Your task to perform on an android device: Is it going to rain today? Image 0: 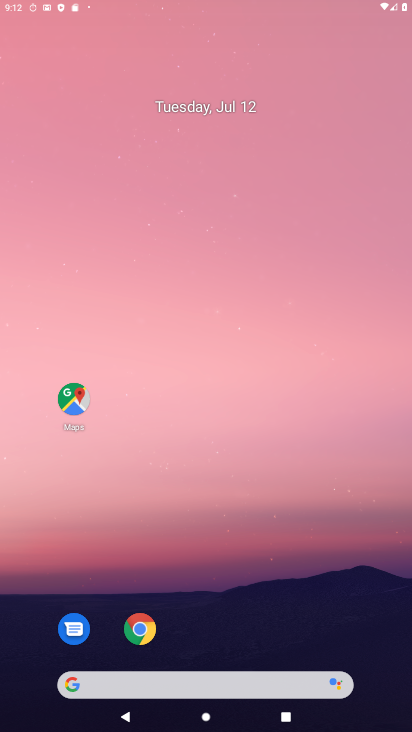
Step 0: drag from (275, 676) to (227, 209)
Your task to perform on an android device: Is it going to rain today? Image 1: 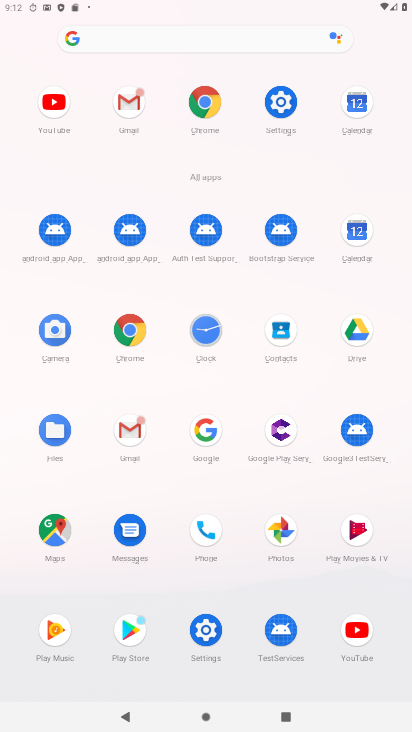
Step 1: click (202, 95)
Your task to perform on an android device: Is it going to rain today? Image 2: 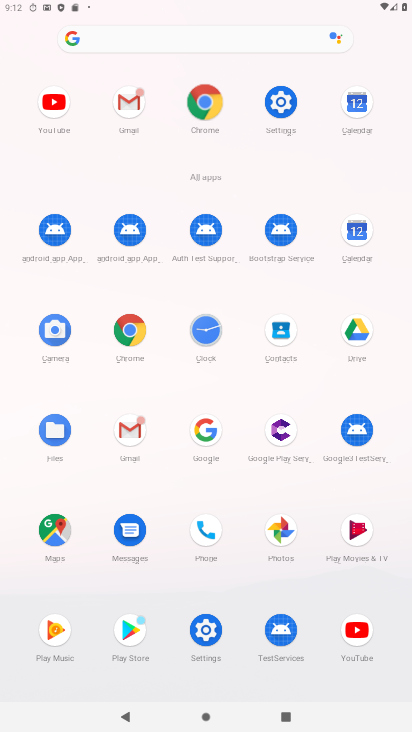
Step 2: click (205, 94)
Your task to perform on an android device: Is it going to rain today? Image 3: 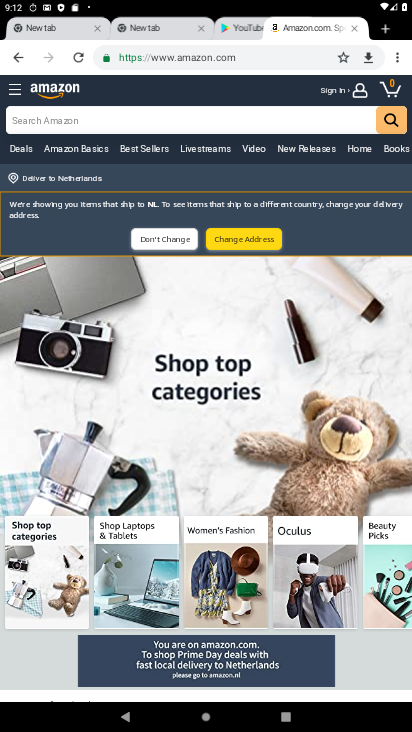
Step 3: click (154, 54)
Your task to perform on an android device: Is it going to rain today? Image 4: 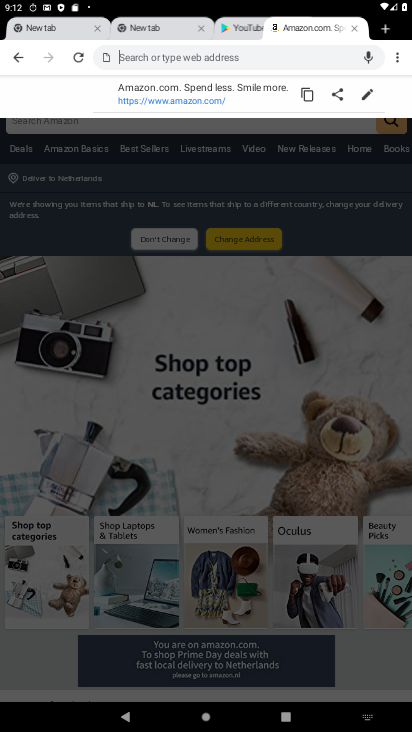
Step 4: type "is it going to rain today?"
Your task to perform on an android device: Is it going to rain today? Image 5: 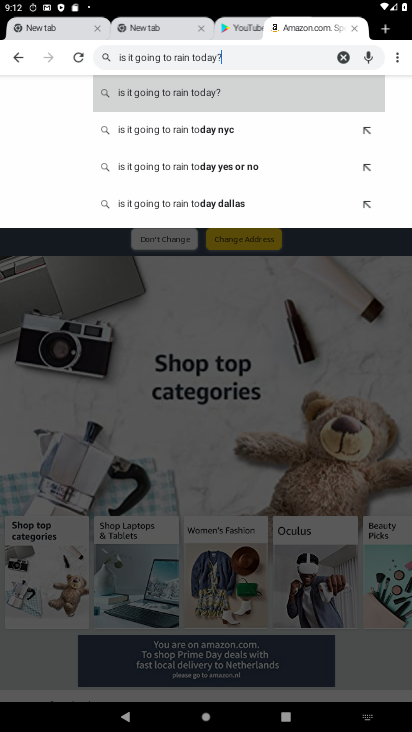
Step 5: click (170, 94)
Your task to perform on an android device: Is it going to rain today? Image 6: 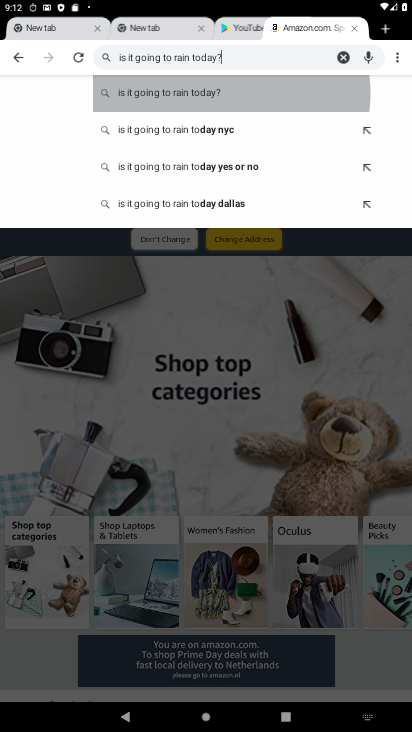
Step 6: click (171, 94)
Your task to perform on an android device: Is it going to rain today? Image 7: 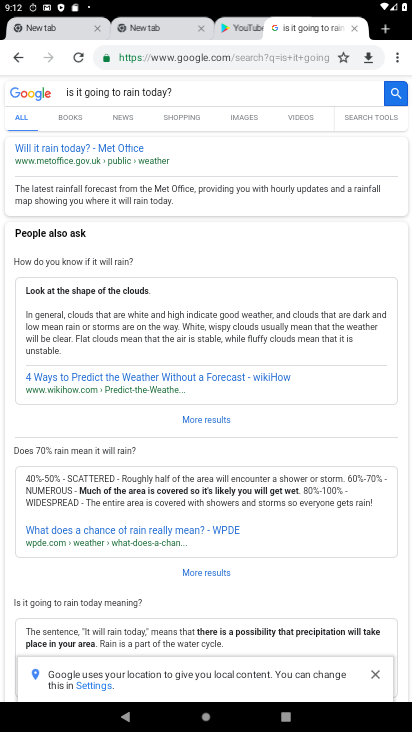
Step 7: task complete